Your task to perform on an android device: Search for macbook on walmart, select the first entry, add it to the cart, then select checkout. Image 0: 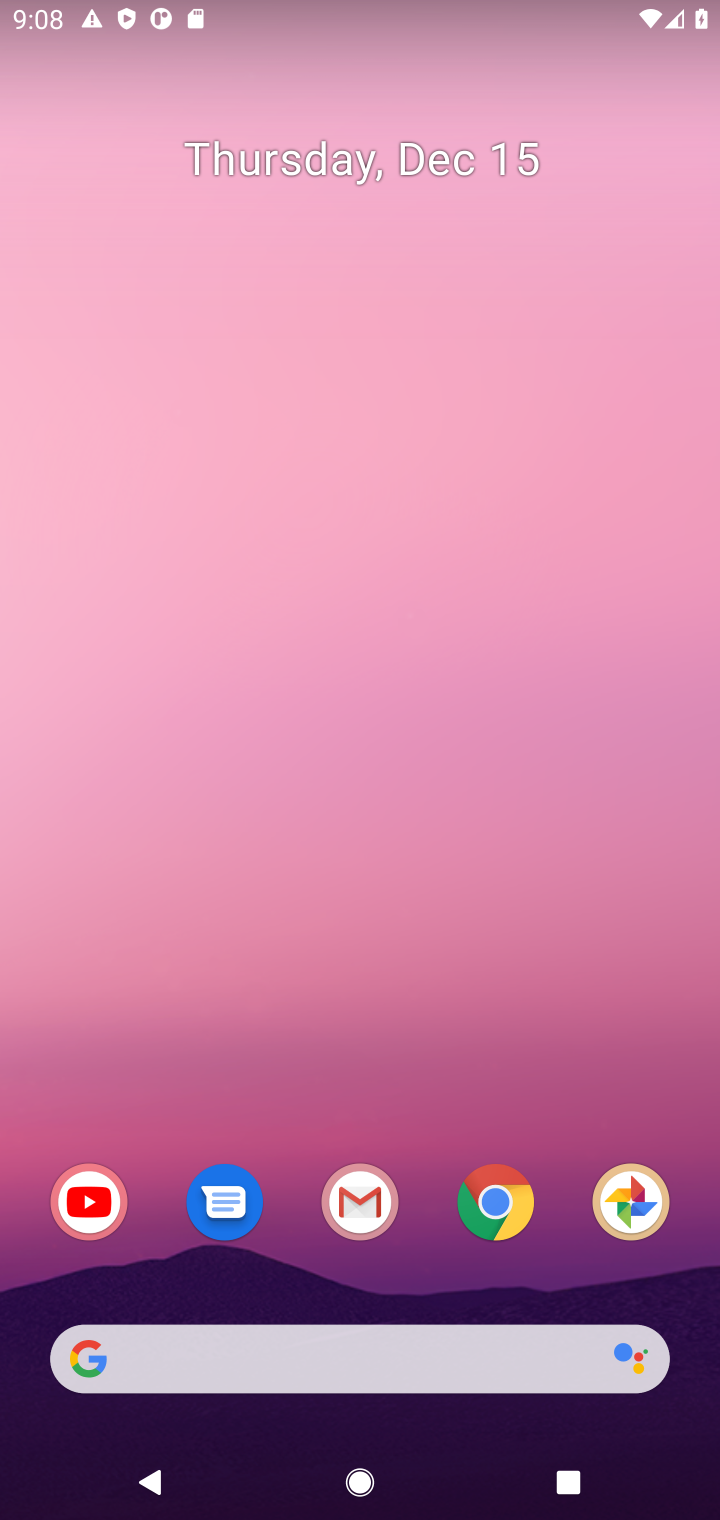
Step 0: click (497, 1206)
Your task to perform on an android device: Search for macbook on walmart, select the first entry, add it to the cart, then select checkout. Image 1: 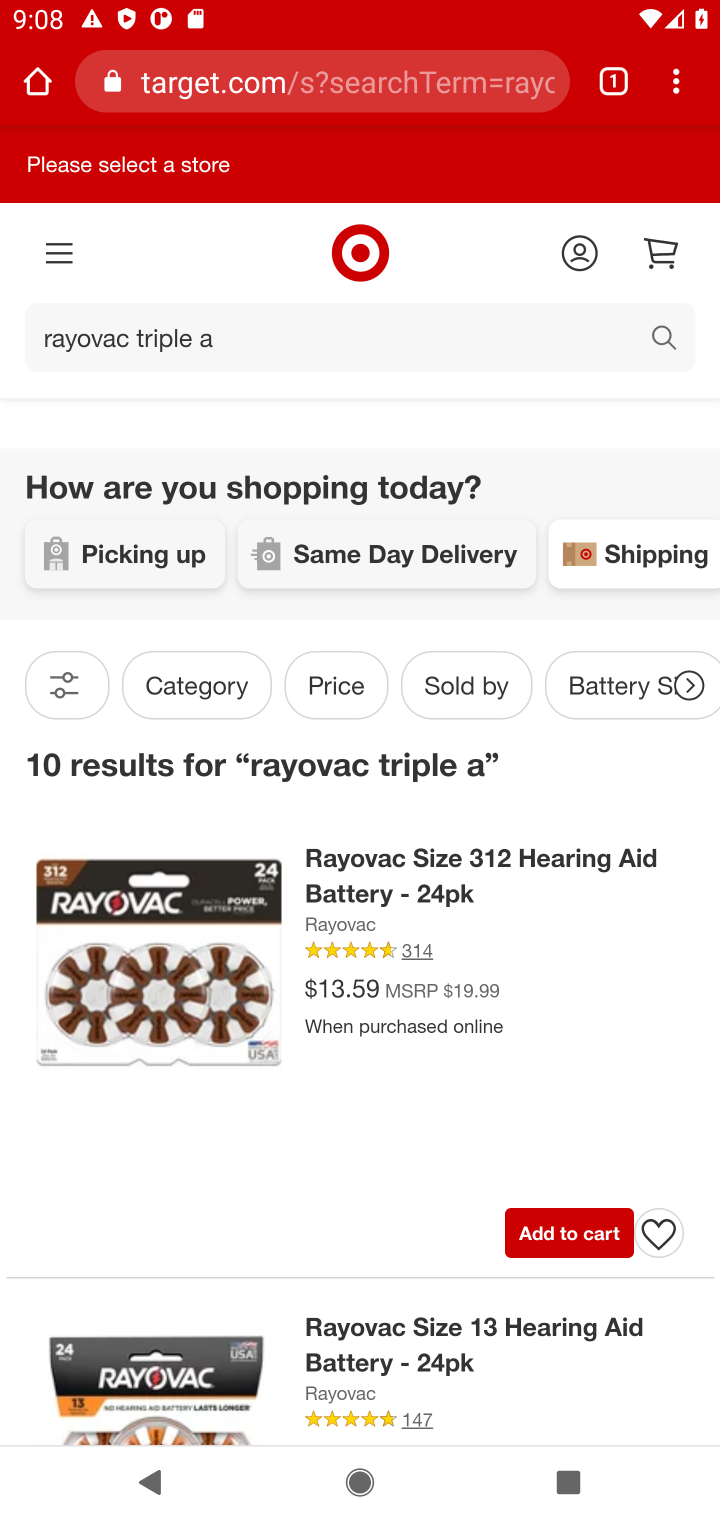
Step 1: click (224, 87)
Your task to perform on an android device: Search for macbook on walmart, select the first entry, add it to the cart, then select checkout. Image 2: 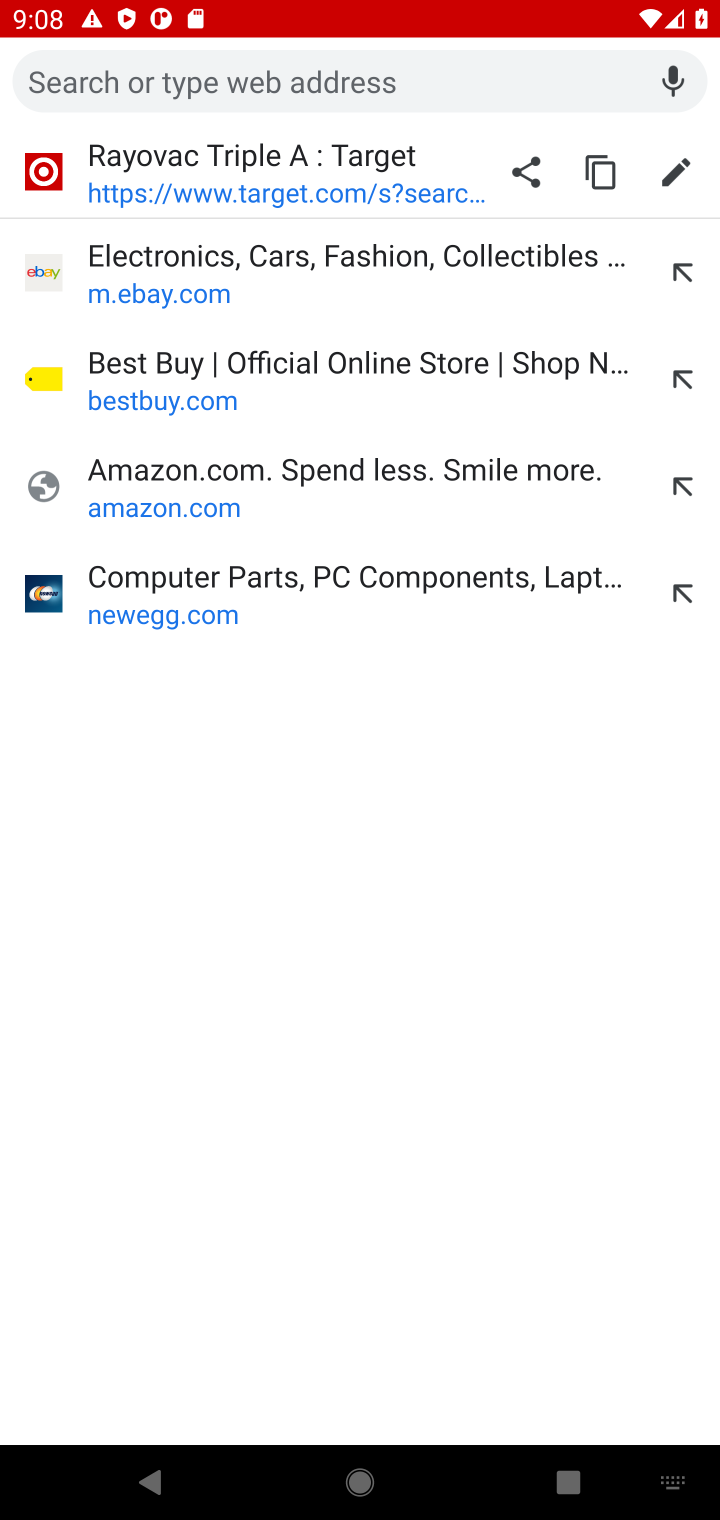
Step 2: type "walmart.com"
Your task to perform on an android device: Search for macbook on walmart, select the first entry, add it to the cart, then select checkout. Image 3: 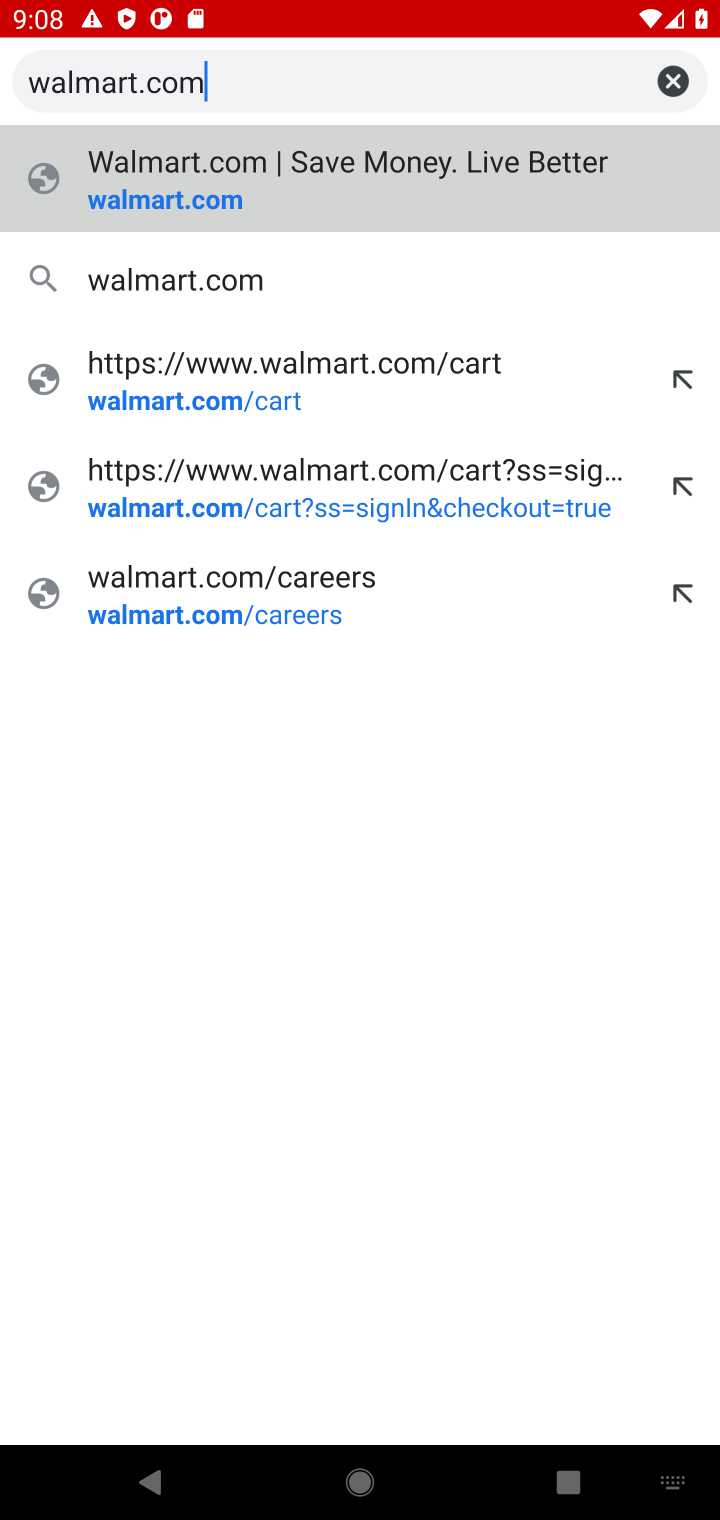
Step 3: click (153, 212)
Your task to perform on an android device: Search for macbook on walmart, select the first entry, add it to the cart, then select checkout. Image 4: 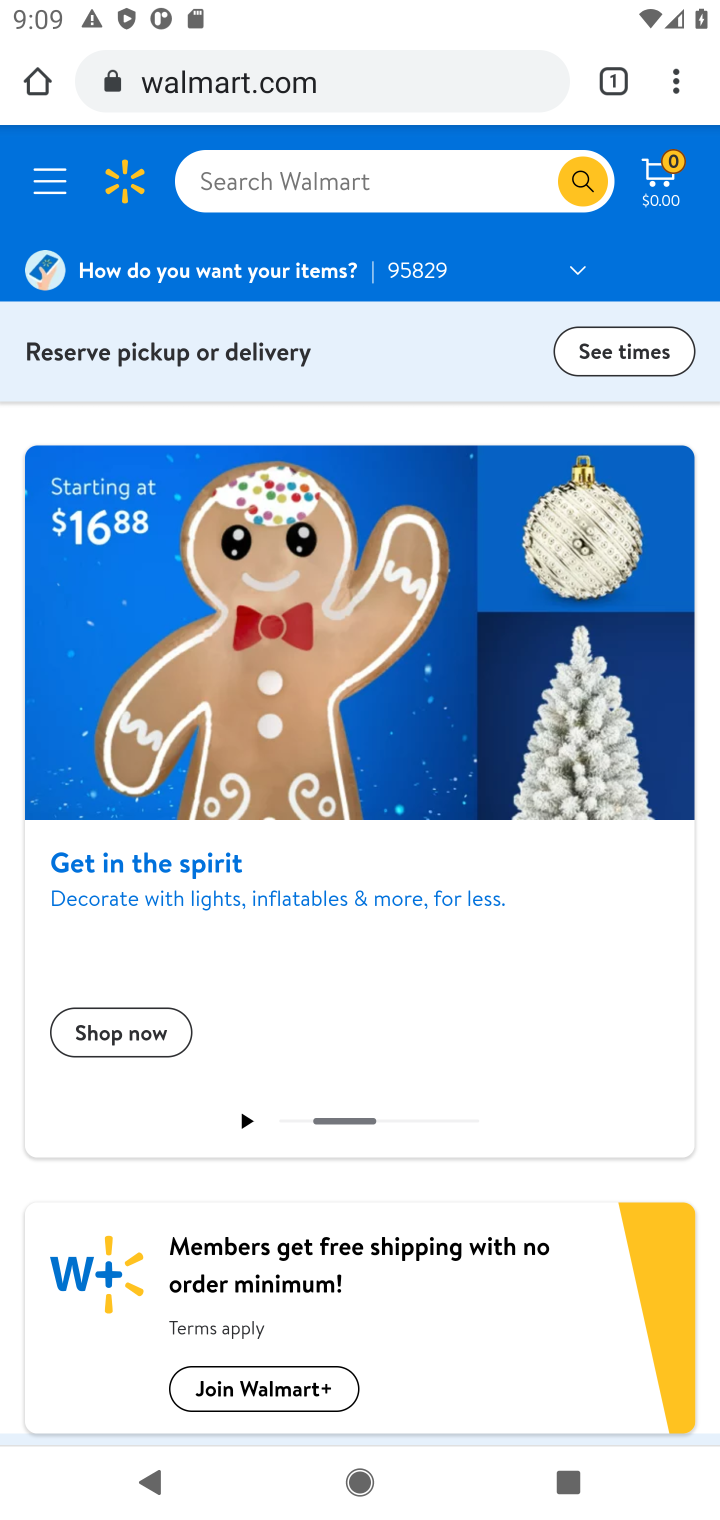
Step 4: click (294, 176)
Your task to perform on an android device: Search for macbook on walmart, select the first entry, add it to the cart, then select checkout. Image 5: 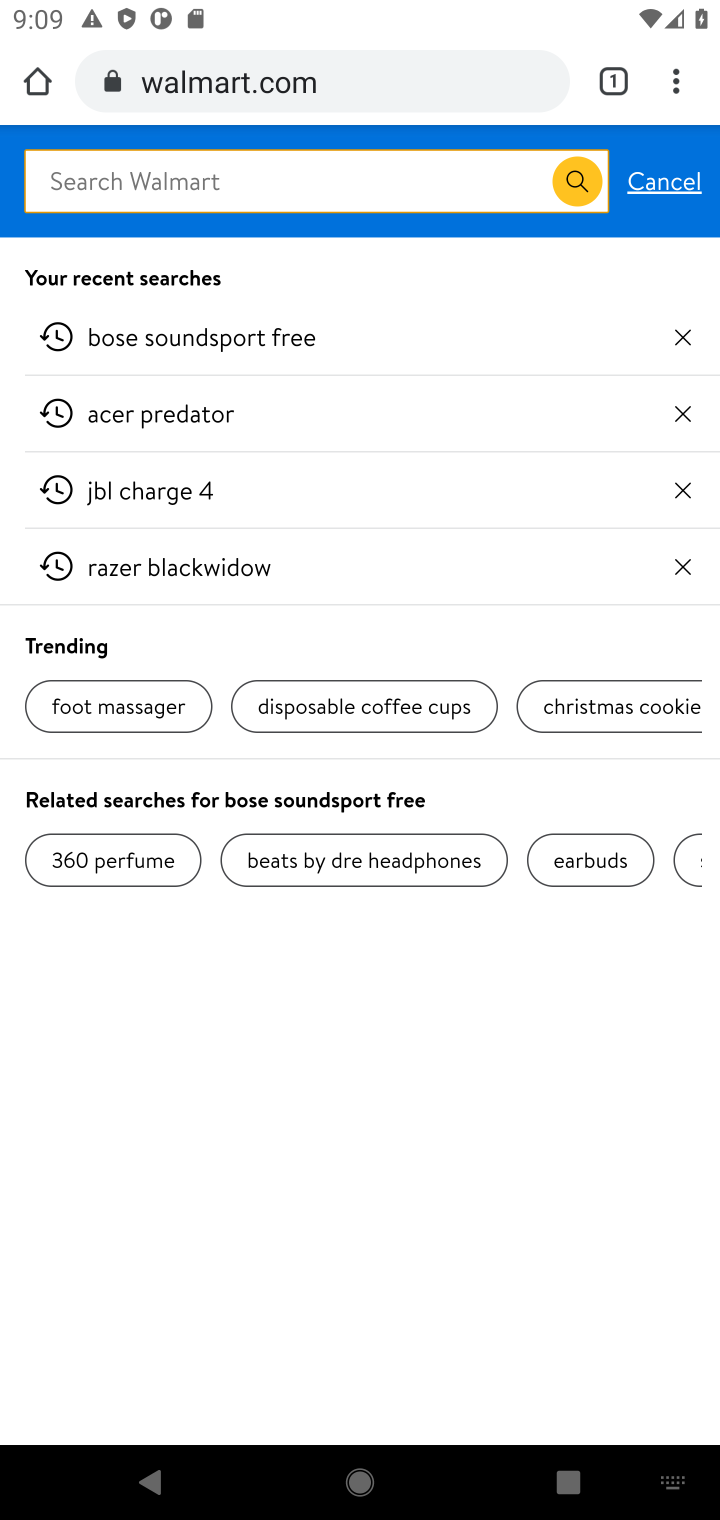
Step 5: type " macbook"
Your task to perform on an android device: Search for macbook on walmart, select the first entry, add it to the cart, then select checkout. Image 6: 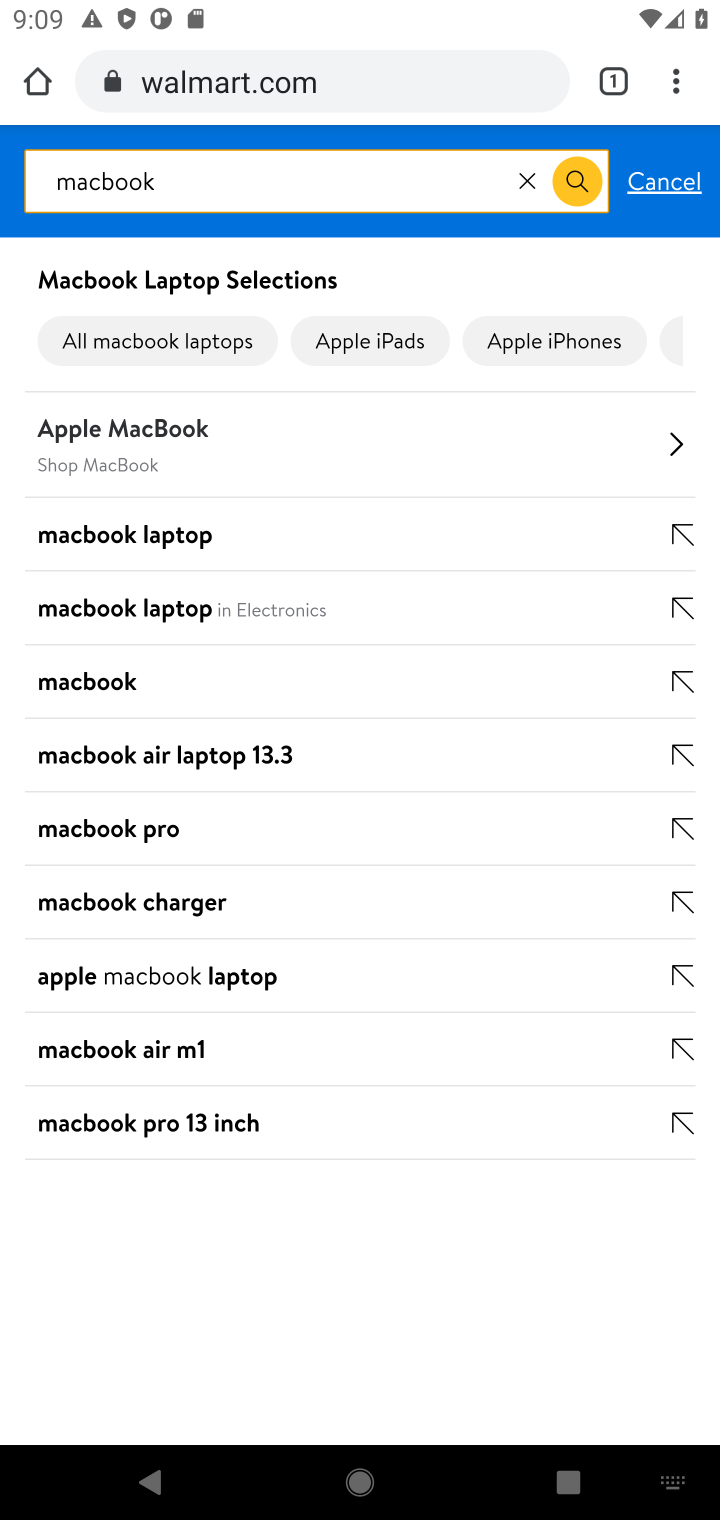
Step 6: click (67, 676)
Your task to perform on an android device: Search for macbook on walmart, select the first entry, add it to the cart, then select checkout. Image 7: 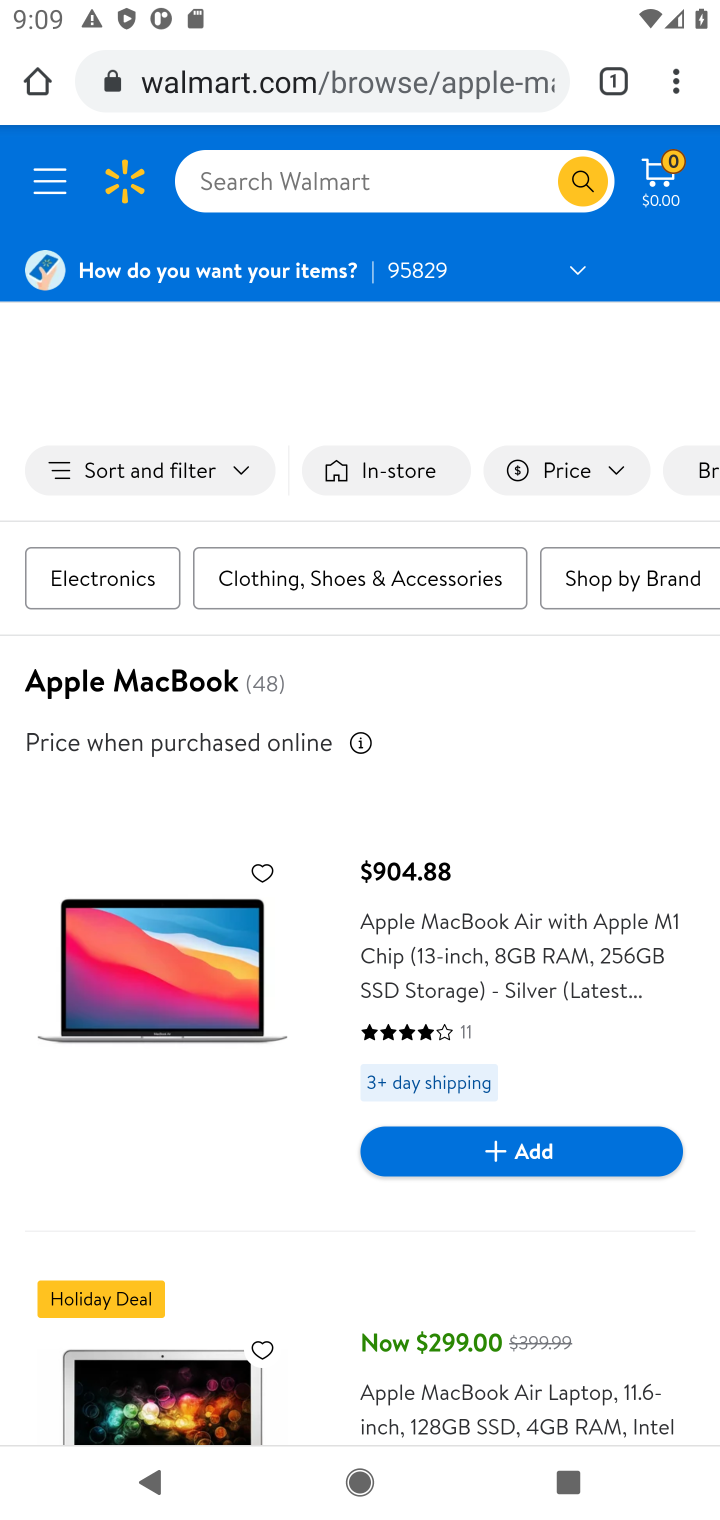
Step 7: click (493, 1151)
Your task to perform on an android device: Search for macbook on walmart, select the first entry, add it to the cart, then select checkout. Image 8: 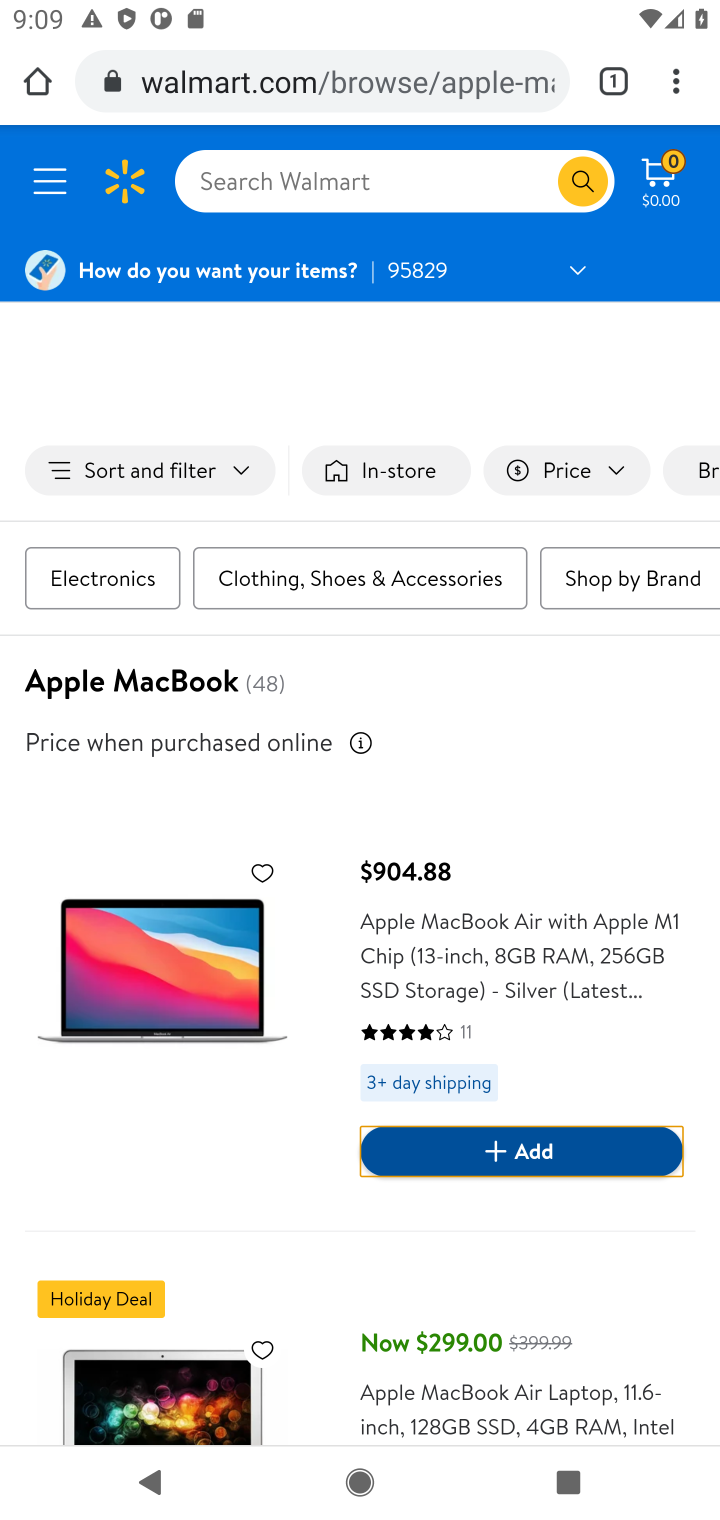
Step 8: click (501, 1151)
Your task to perform on an android device: Search for macbook on walmart, select the first entry, add it to the cart, then select checkout. Image 9: 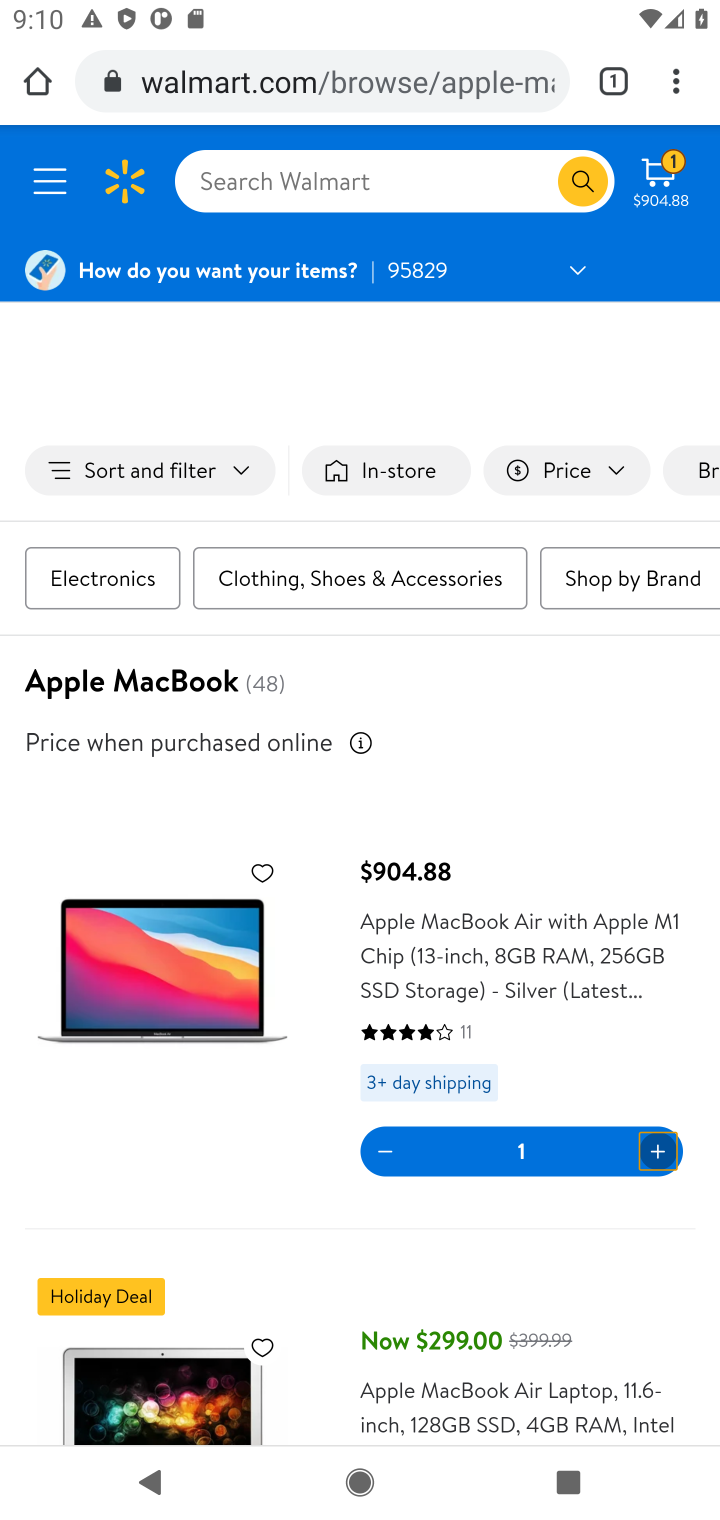
Step 9: click (670, 181)
Your task to perform on an android device: Search for macbook on walmart, select the first entry, add it to the cart, then select checkout. Image 10: 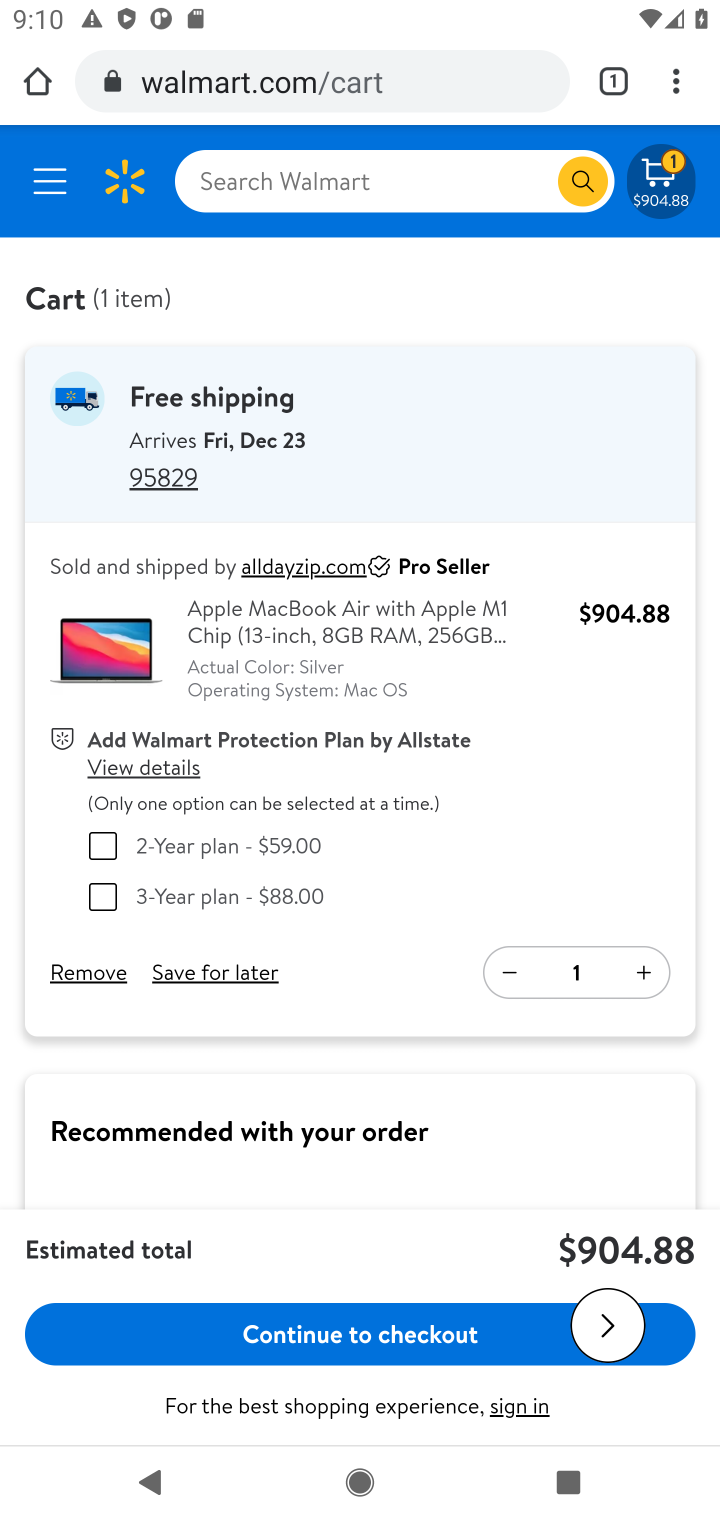
Step 10: click (334, 1329)
Your task to perform on an android device: Search for macbook on walmart, select the first entry, add it to the cart, then select checkout. Image 11: 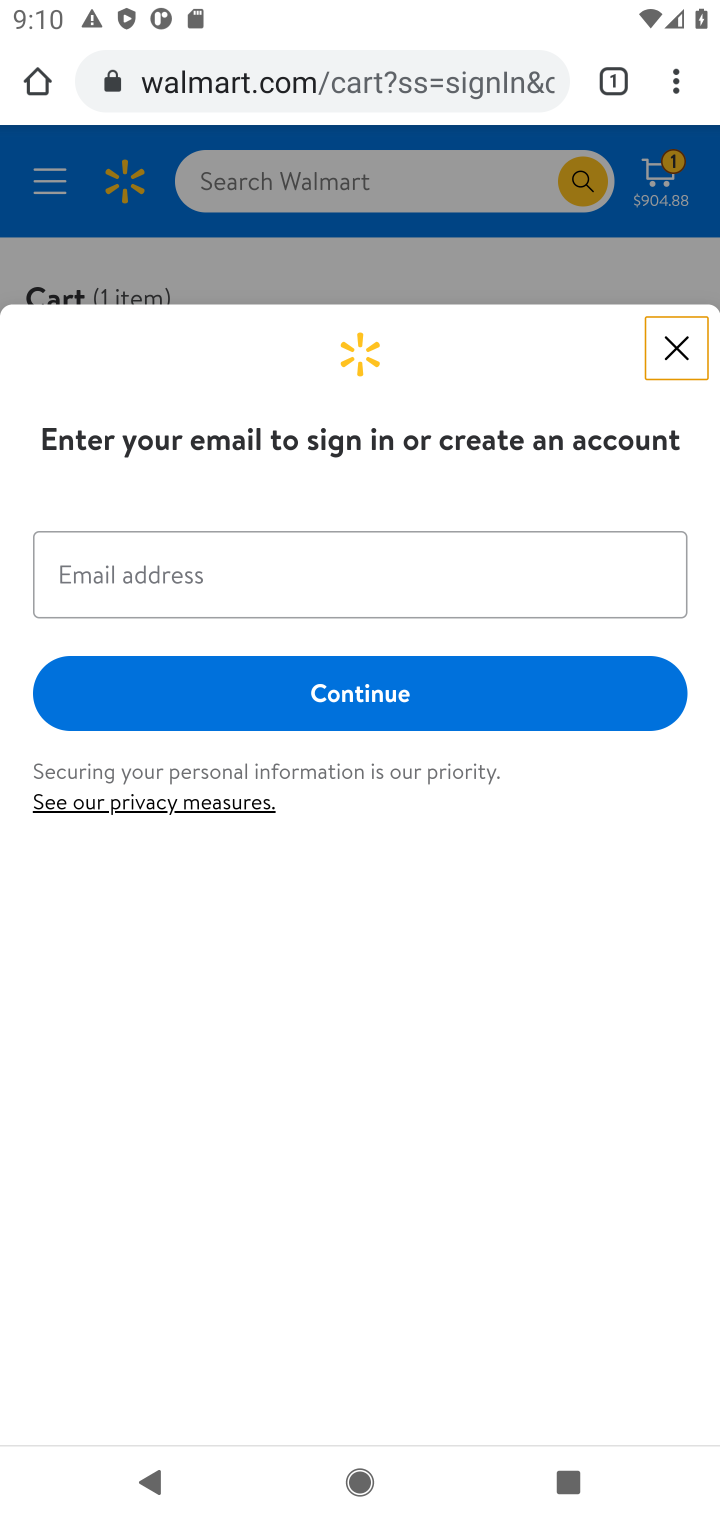
Step 11: task complete